Your task to perform on an android device: set the timer Image 0: 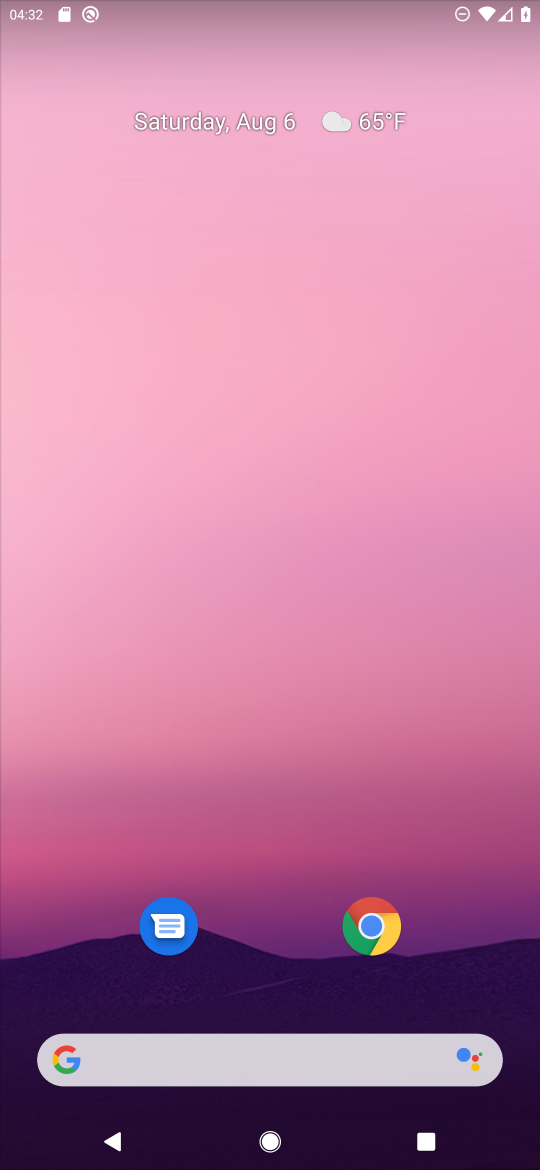
Step 0: drag from (273, 930) to (222, 238)
Your task to perform on an android device: set the timer Image 1: 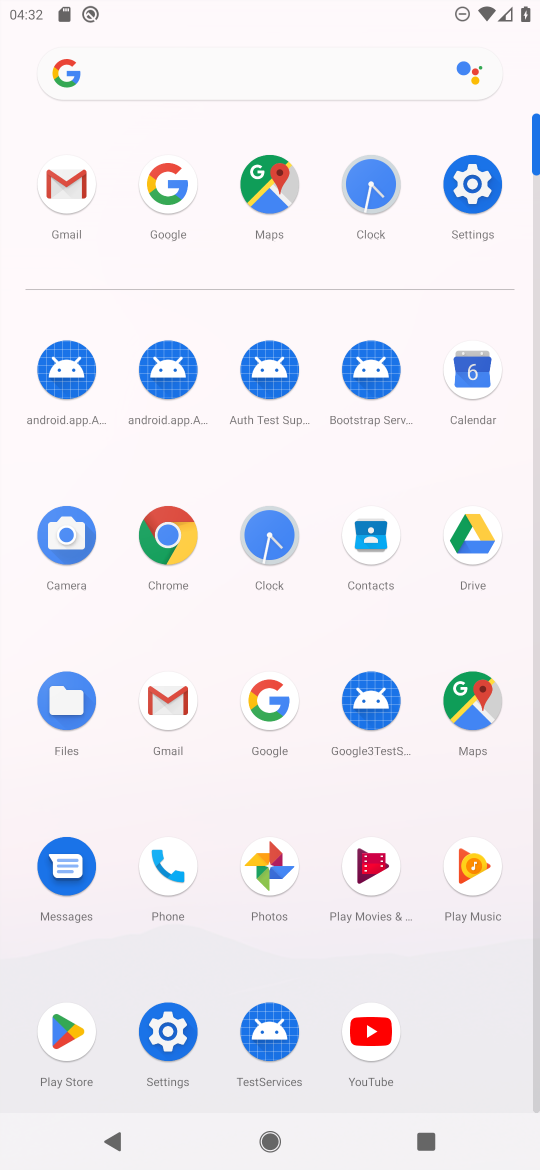
Step 1: click (362, 185)
Your task to perform on an android device: set the timer Image 2: 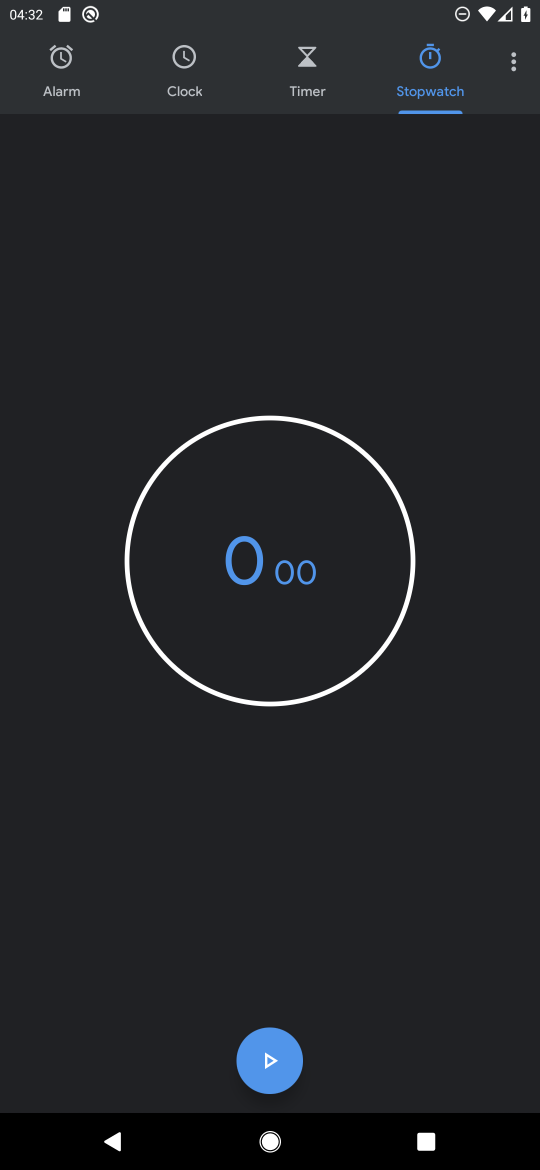
Step 2: click (310, 76)
Your task to perform on an android device: set the timer Image 3: 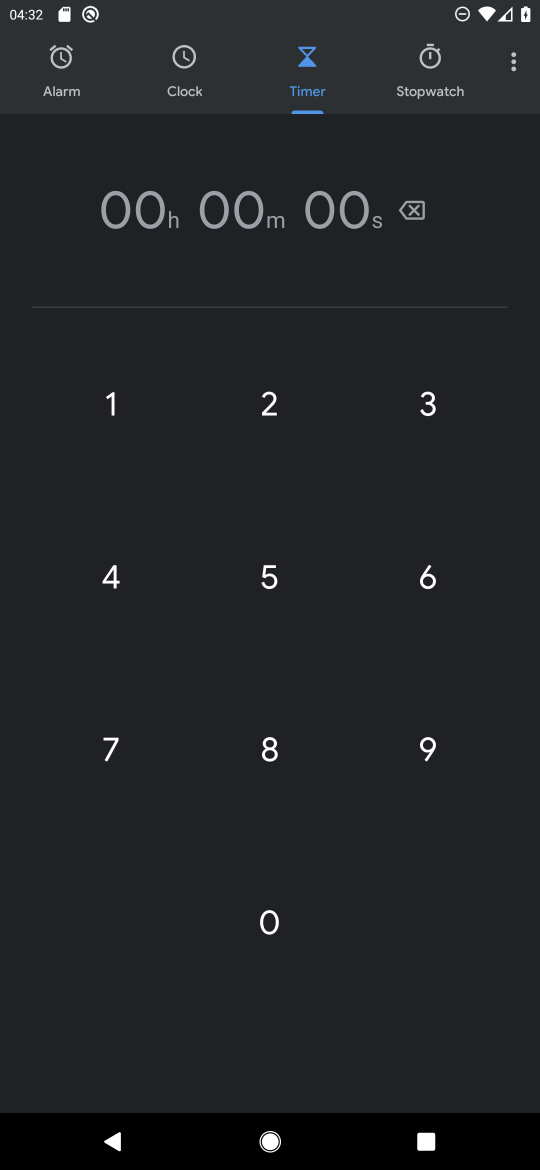
Step 3: click (317, 197)
Your task to perform on an android device: set the timer Image 4: 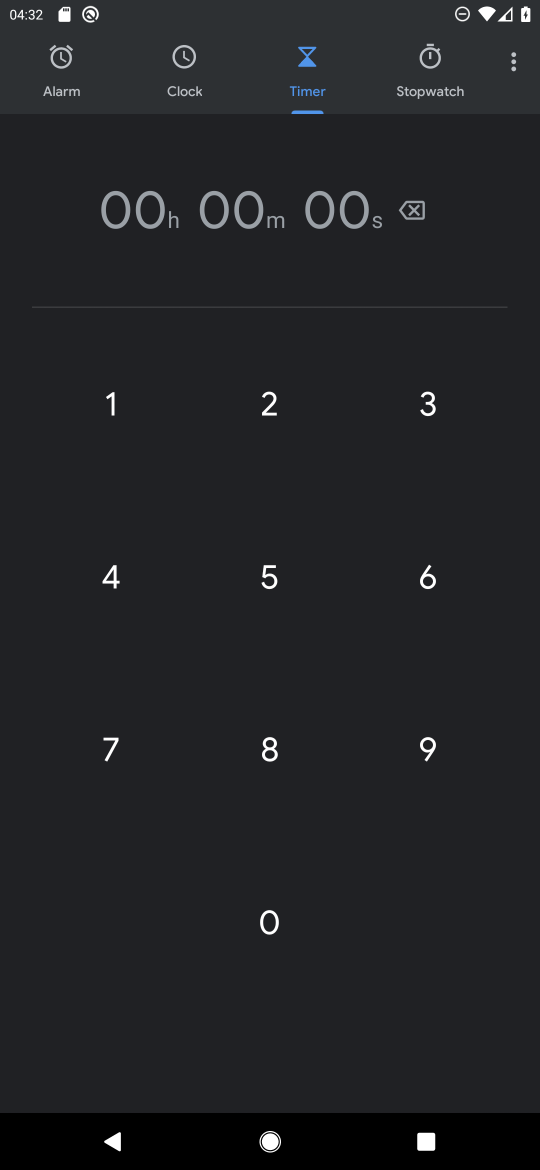
Step 4: type "11"
Your task to perform on an android device: set the timer Image 5: 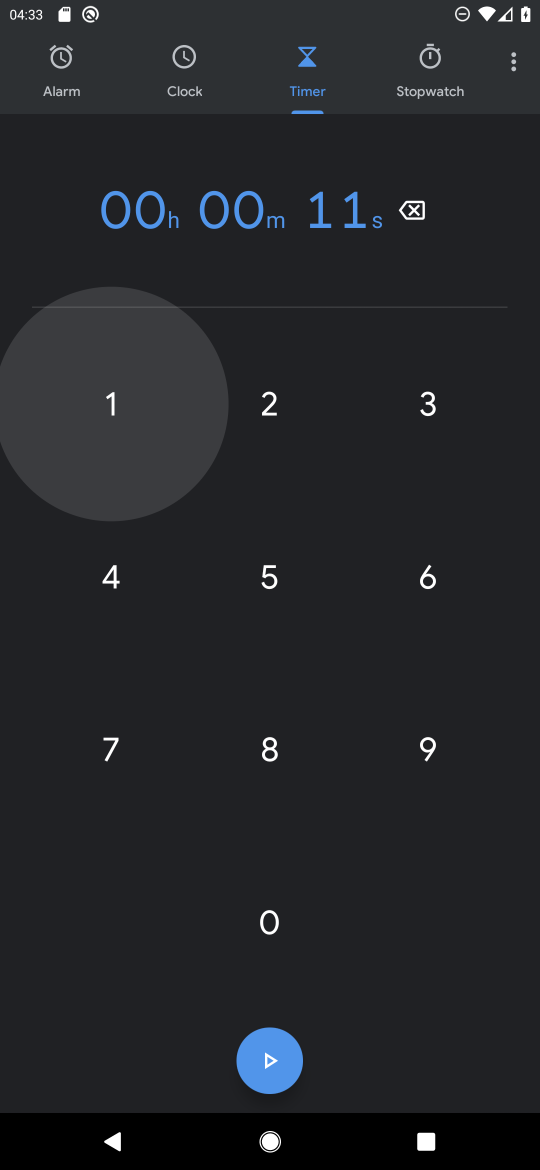
Step 5: click (272, 1047)
Your task to perform on an android device: set the timer Image 6: 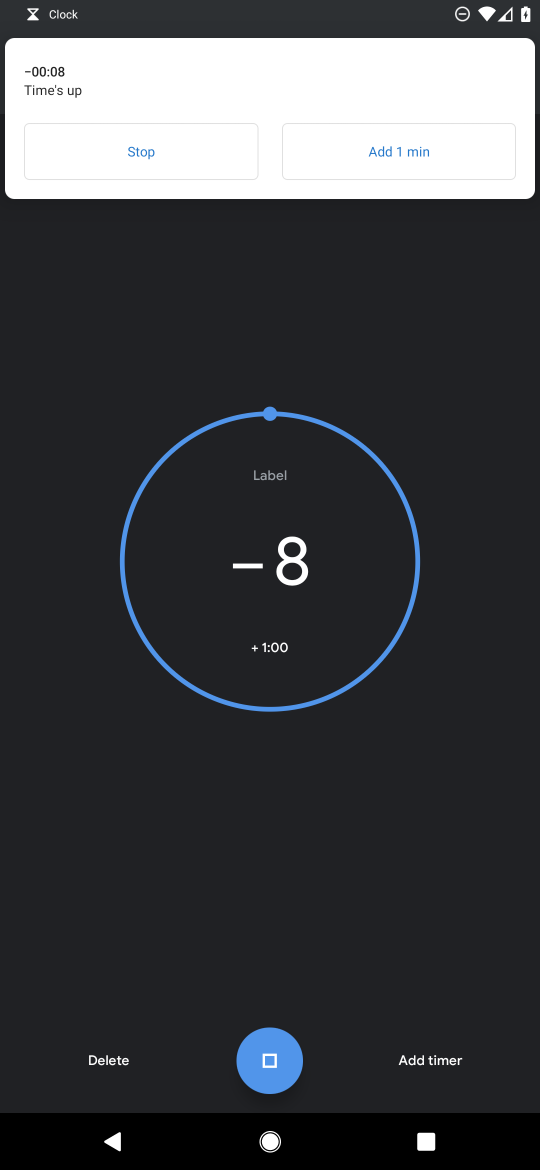
Step 6: task complete